Your task to perform on an android device: show emergency info Image 0: 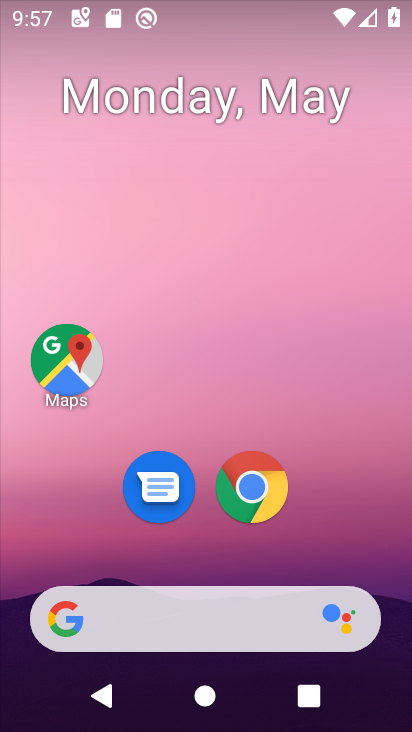
Step 0: drag from (331, 535) to (322, 0)
Your task to perform on an android device: show emergency info Image 1: 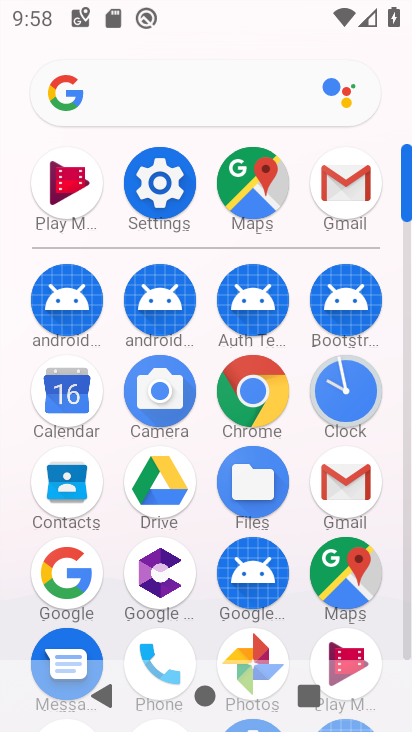
Step 1: click (157, 176)
Your task to perform on an android device: show emergency info Image 2: 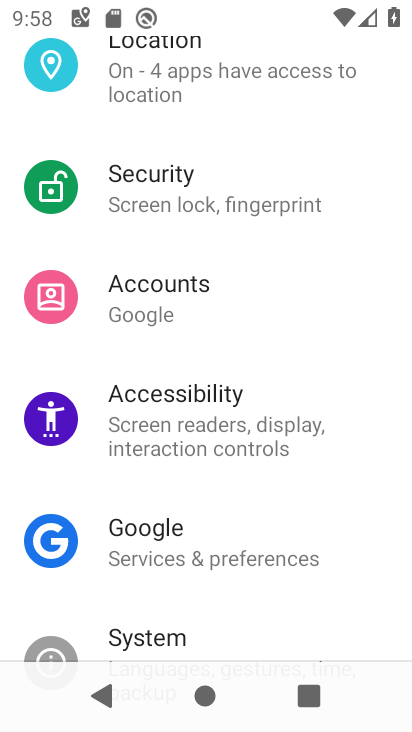
Step 2: drag from (194, 605) to (227, 332)
Your task to perform on an android device: show emergency info Image 3: 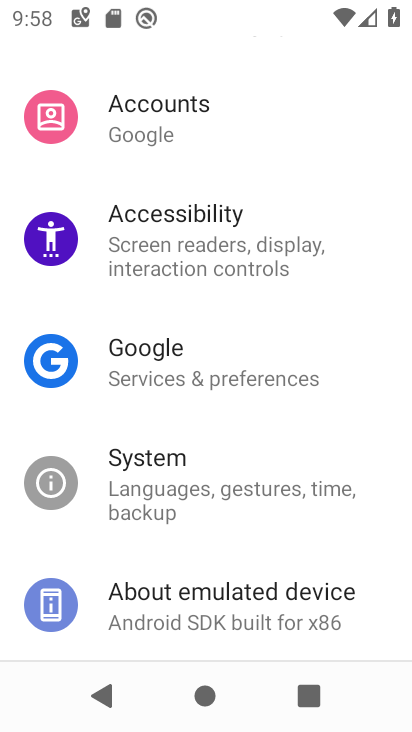
Step 3: click (211, 596)
Your task to perform on an android device: show emergency info Image 4: 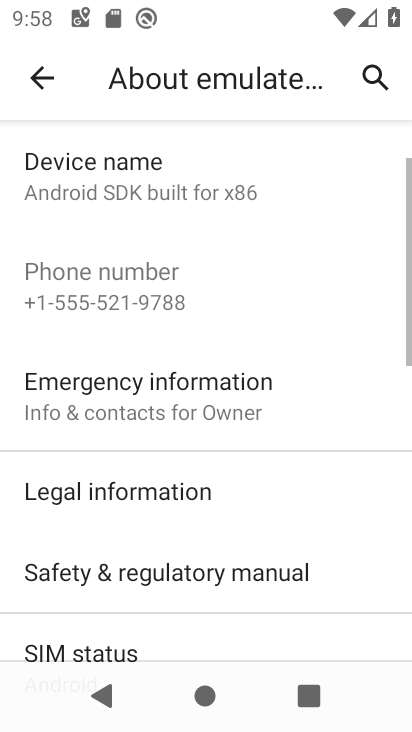
Step 4: click (125, 373)
Your task to perform on an android device: show emergency info Image 5: 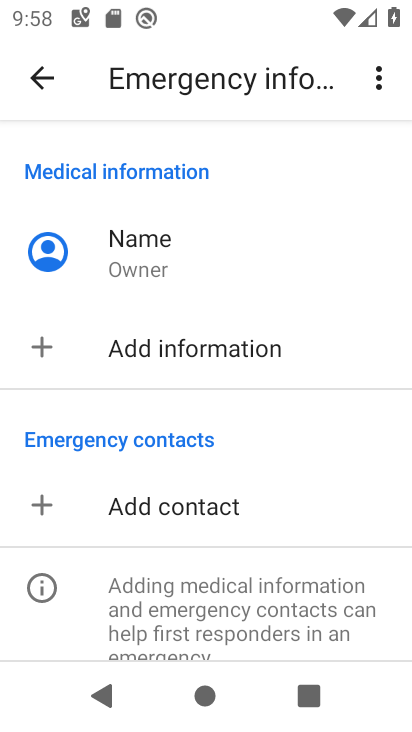
Step 5: task complete